Your task to perform on an android device: remove spam from my inbox in the gmail app Image 0: 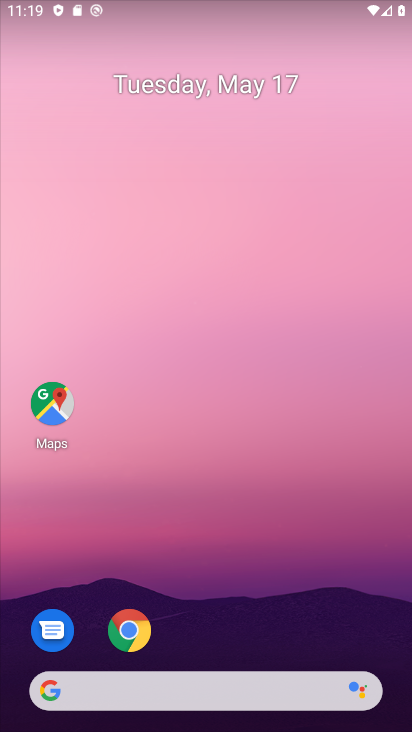
Step 0: drag from (223, 588) to (285, 156)
Your task to perform on an android device: remove spam from my inbox in the gmail app Image 1: 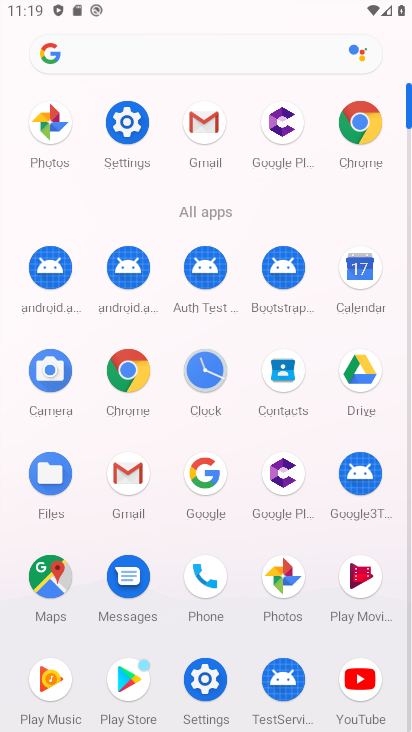
Step 1: click (206, 121)
Your task to perform on an android device: remove spam from my inbox in the gmail app Image 2: 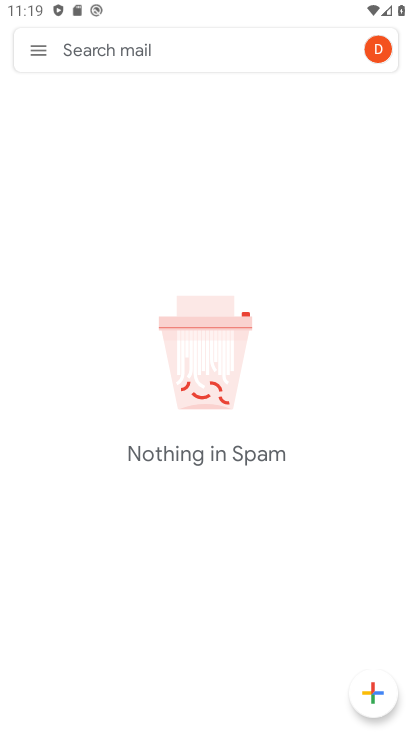
Step 2: click (36, 44)
Your task to perform on an android device: remove spam from my inbox in the gmail app Image 3: 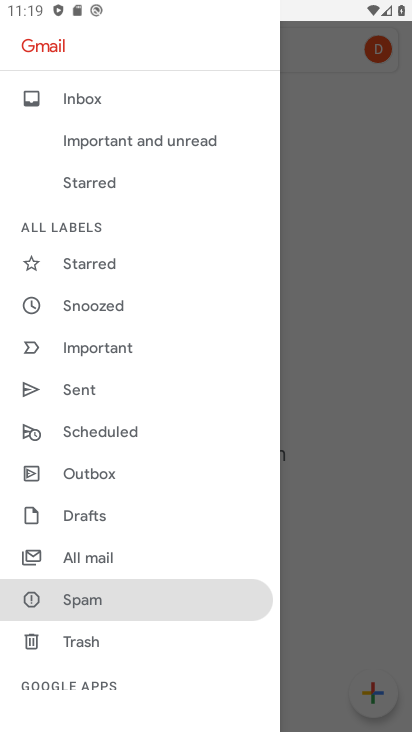
Step 3: click (104, 594)
Your task to perform on an android device: remove spam from my inbox in the gmail app Image 4: 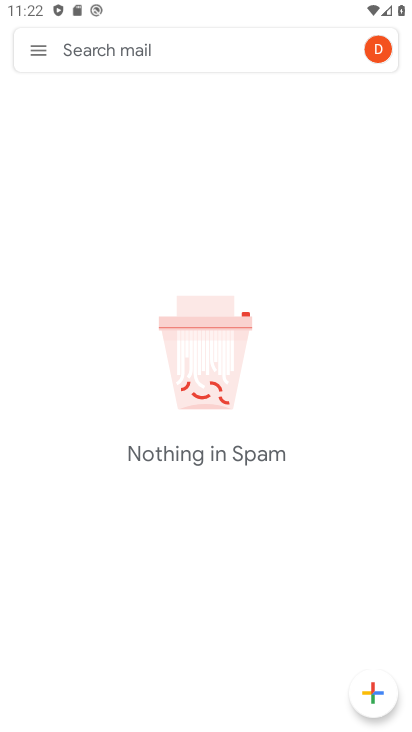
Step 4: task complete